Your task to perform on an android device: turn on bluetooth scan Image 0: 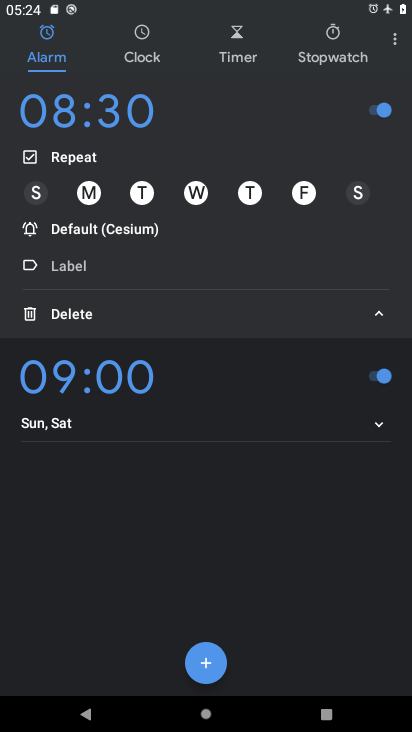
Step 0: press home button
Your task to perform on an android device: turn on bluetooth scan Image 1: 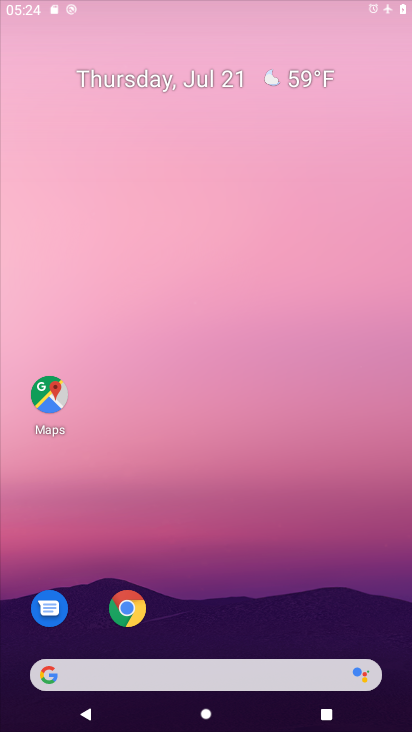
Step 1: drag from (302, 676) to (267, 175)
Your task to perform on an android device: turn on bluetooth scan Image 2: 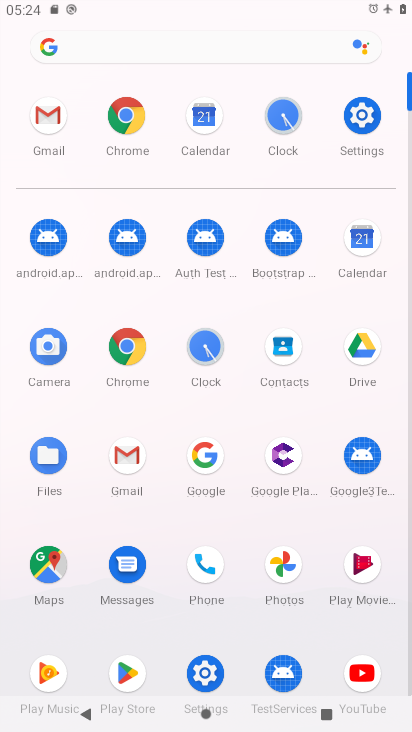
Step 2: click (375, 125)
Your task to perform on an android device: turn on bluetooth scan Image 3: 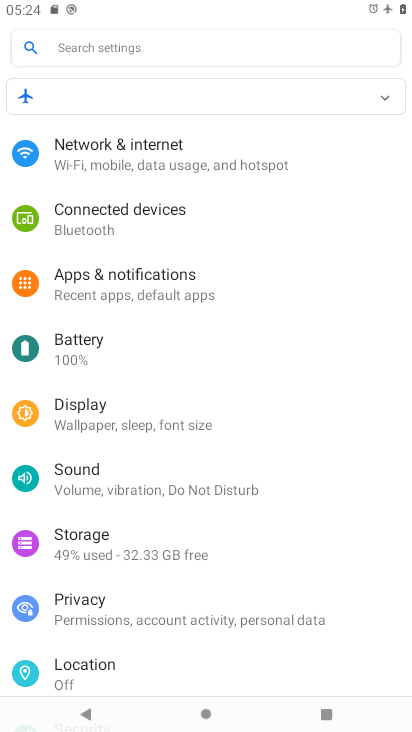
Step 3: click (138, 666)
Your task to perform on an android device: turn on bluetooth scan Image 4: 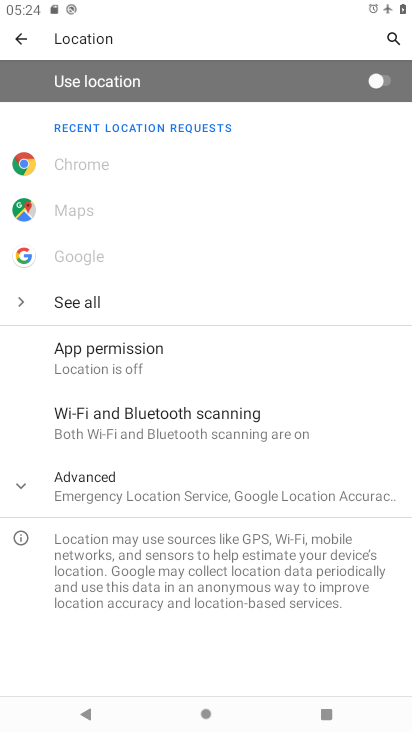
Step 4: click (215, 438)
Your task to perform on an android device: turn on bluetooth scan Image 5: 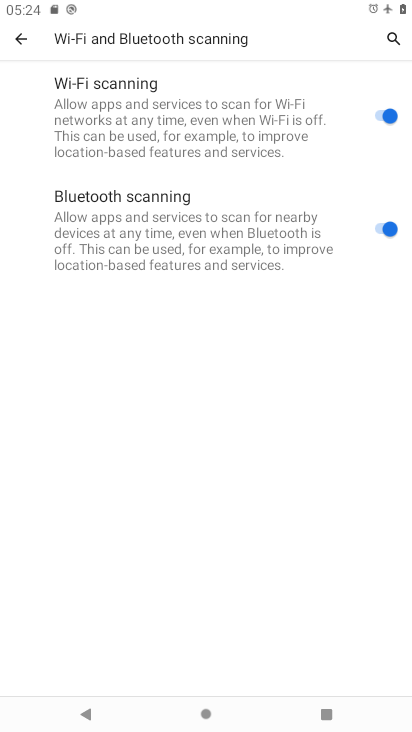
Step 5: task complete